Your task to perform on an android device: What's the weather going to be tomorrow? Image 0: 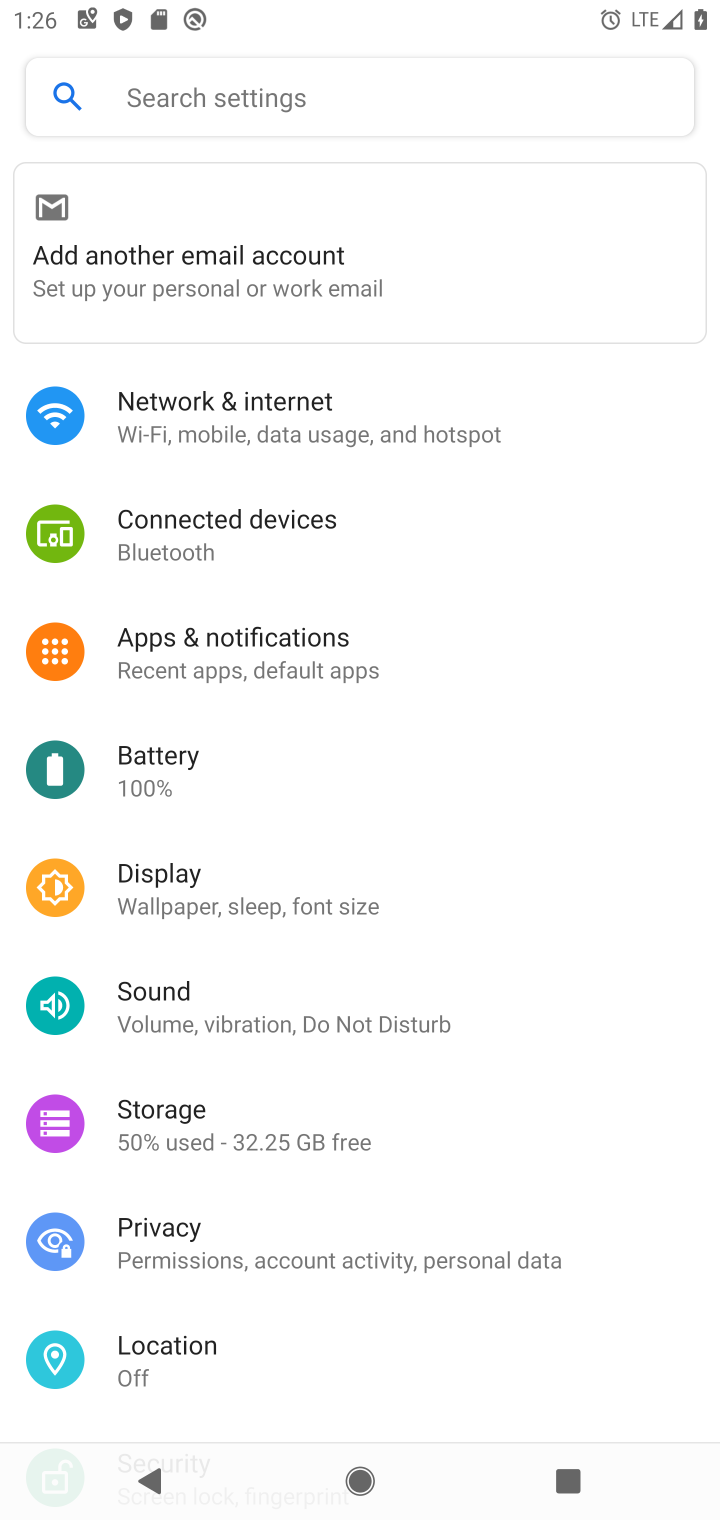
Step 0: press home button
Your task to perform on an android device: What's the weather going to be tomorrow? Image 1: 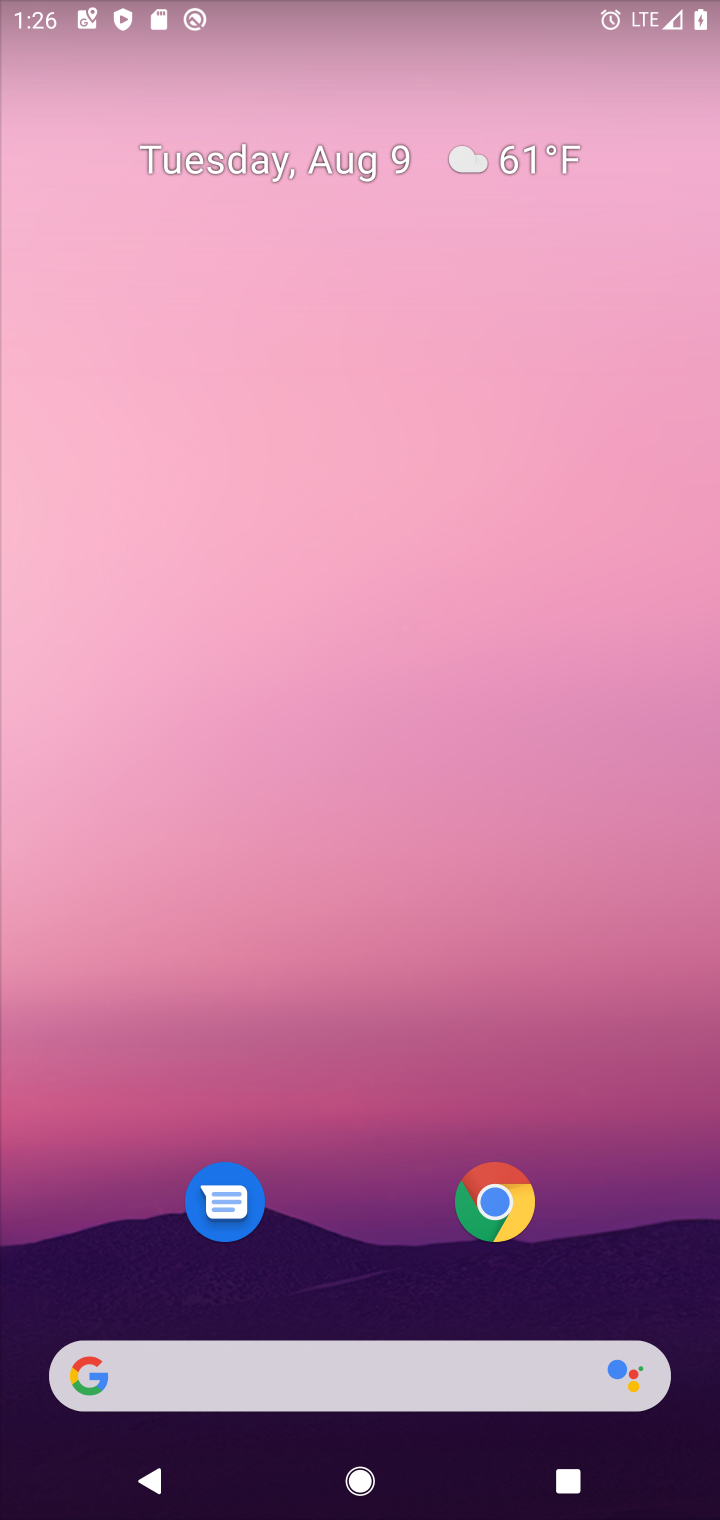
Step 1: click (351, 1375)
Your task to perform on an android device: What's the weather going to be tomorrow? Image 2: 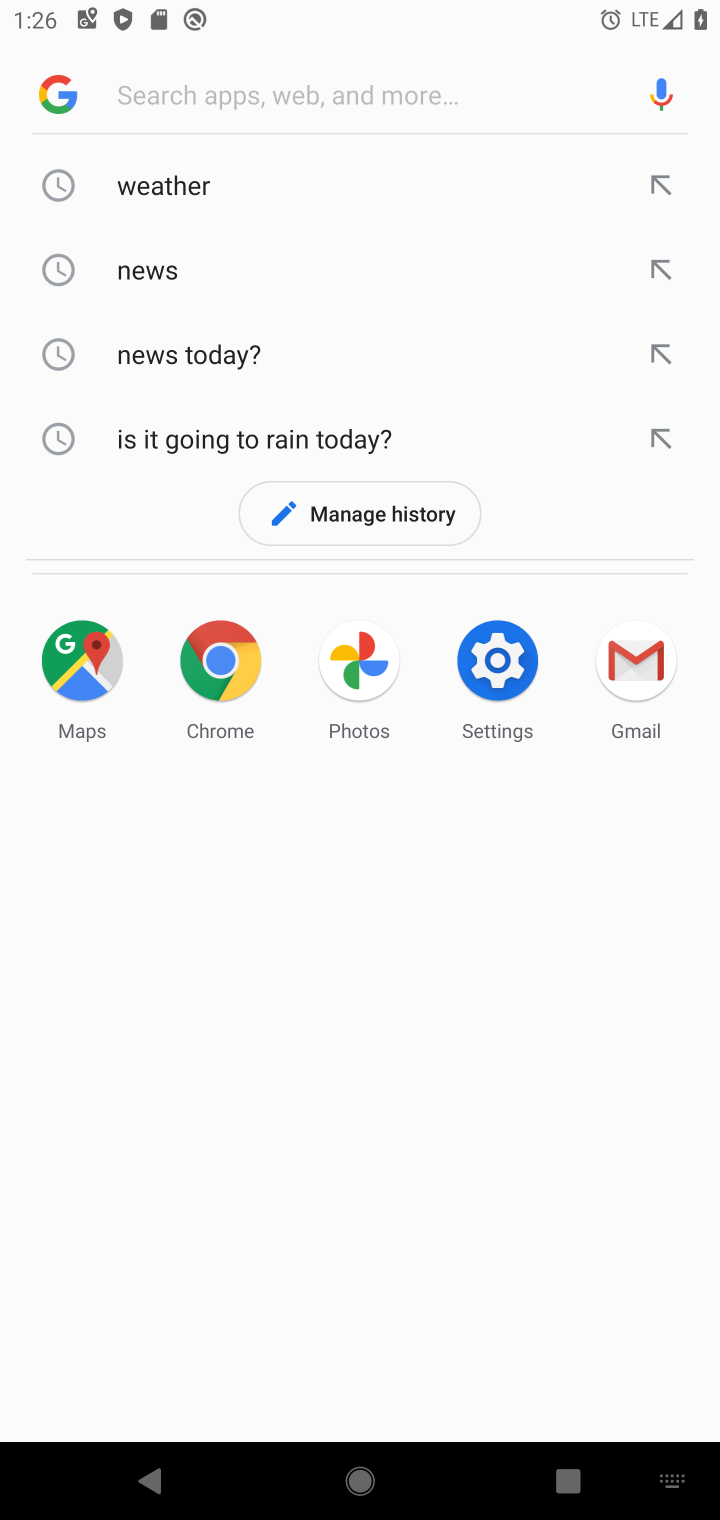
Step 2: click (182, 182)
Your task to perform on an android device: What's the weather going to be tomorrow? Image 3: 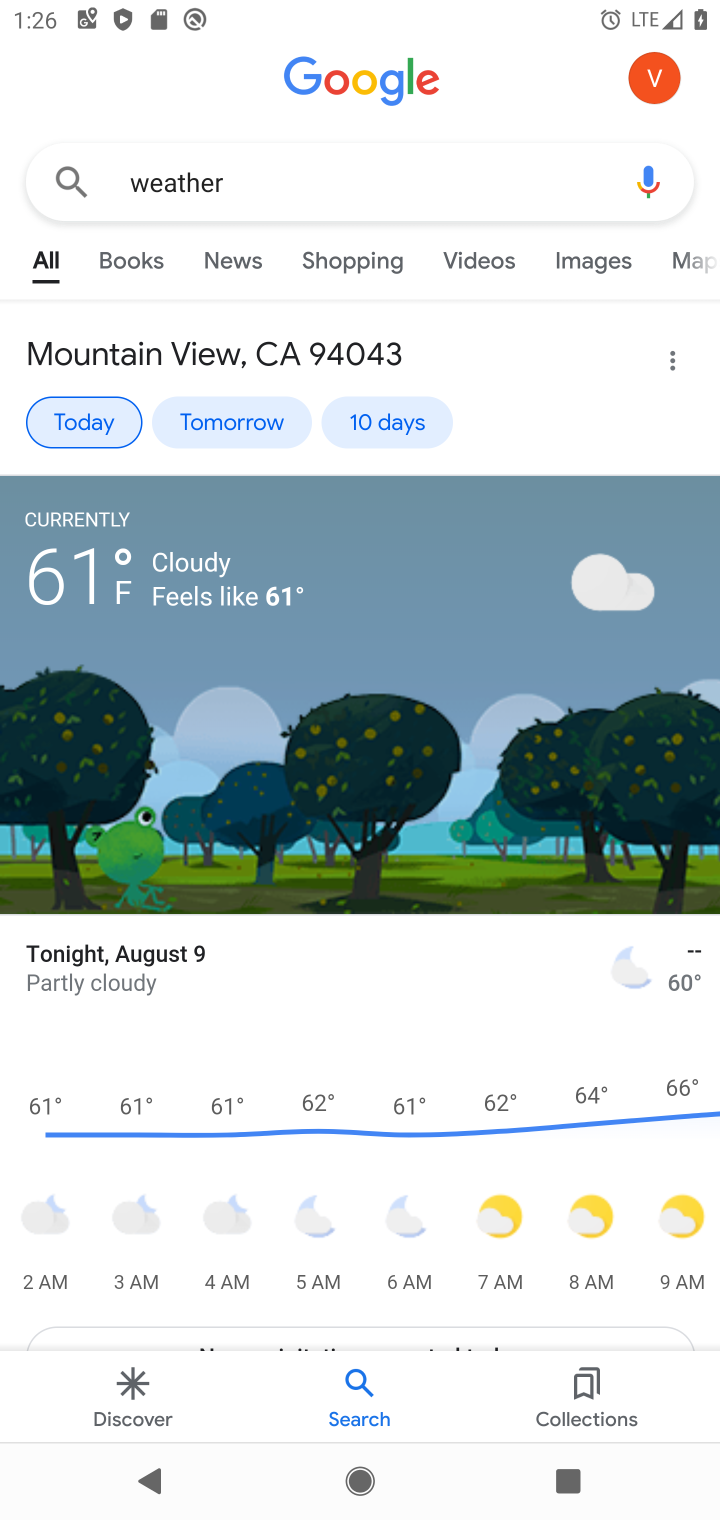
Step 3: task complete